Your task to perform on an android device: What's the weather going to be tomorrow? Image 0: 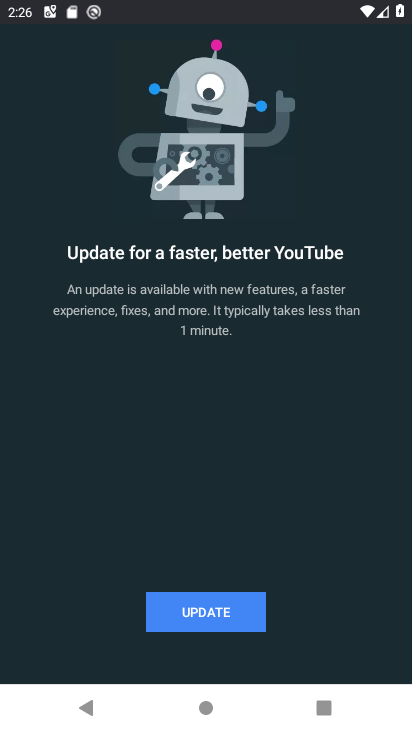
Step 0: press home button
Your task to perform on an android device: What's the weather going to be tomorrow? Image 1: 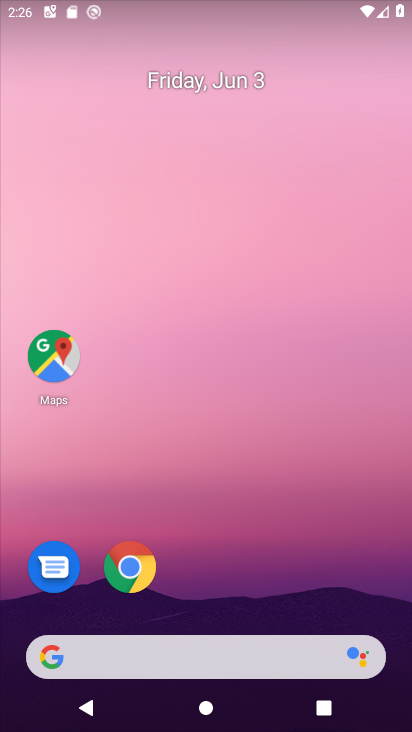
Step 1: drag from (218, 433) to (192, 186)
Your task to perform on an android device: What's the weather going to be tomorrow? Image 2: 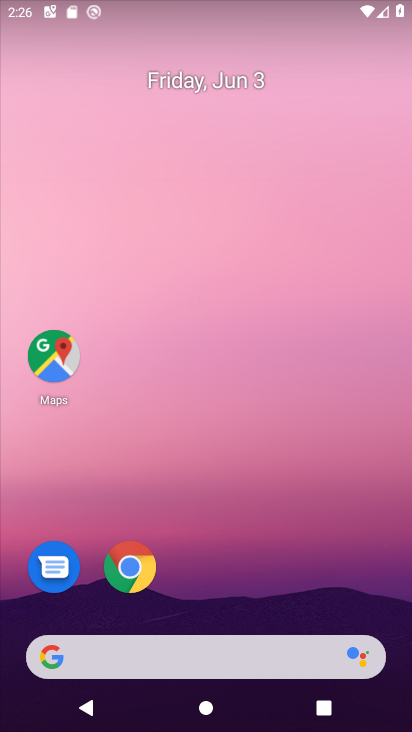
Step 2: drag from (250, 541) to (242, 156)
Your task to perform on an android device: What's the weather going to be tomorrow? Image 3: 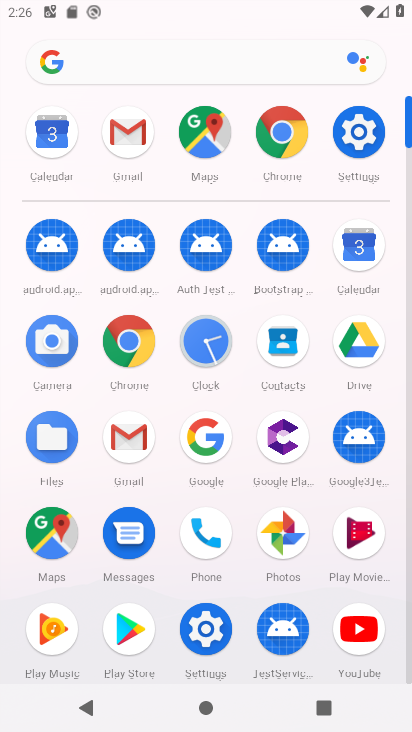
Step 3: click (138, 428)
Your task to perform on an android device: What's the weather going to be tomorrow? Image 4: 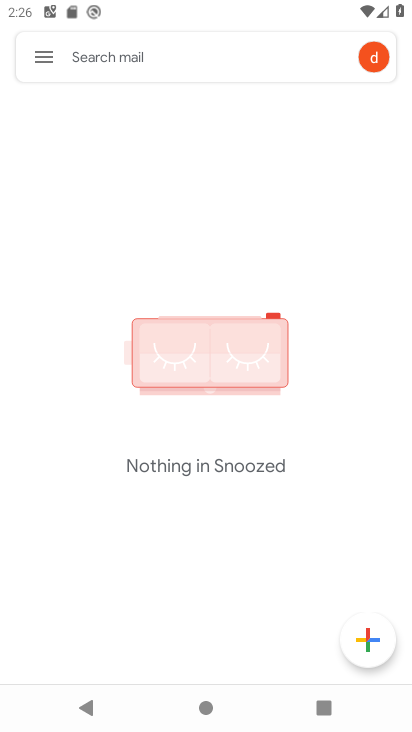
Step 4: click (46, 44)
Your task to perform on an android device: What's the weather going to be tomorrow? Image 5: 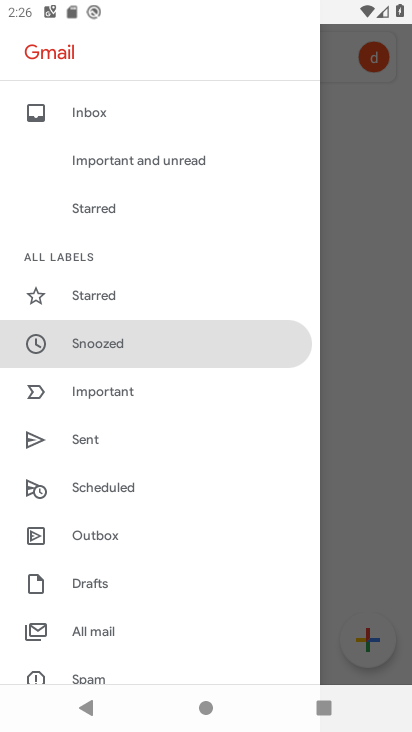
Step 5: press home button
Your task to perform on an android device: What's the weather going to be tomorrow? Image 6: 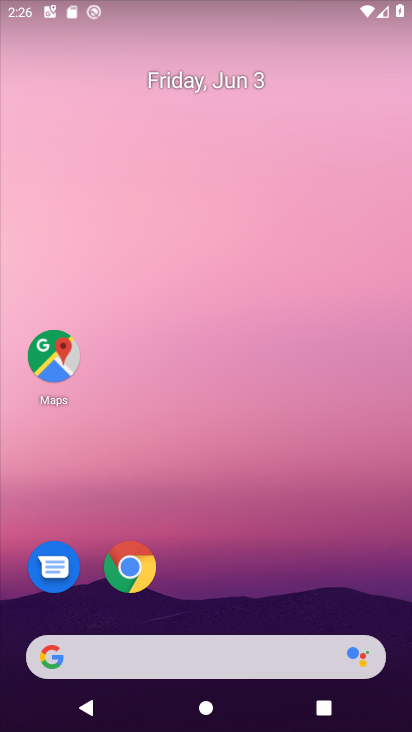
Step 6: click (131, 564)
Your task to perform on an android device: What's the weather going to be tomorrow? Image 7: 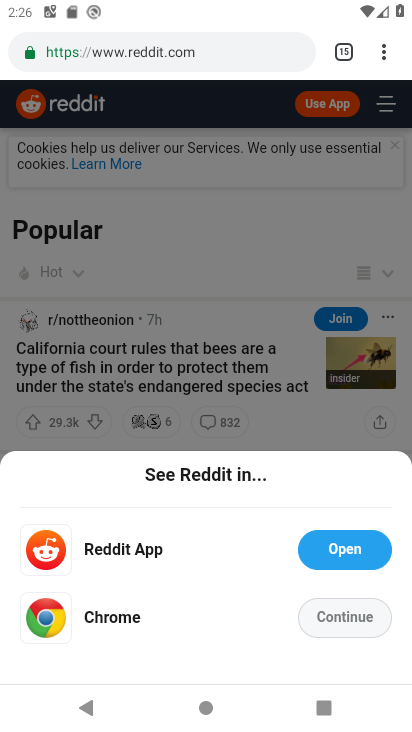
Step 7: click (397, 59)
Your task to perform on an android device: What's the weather going to be tomorrow? Image 8: 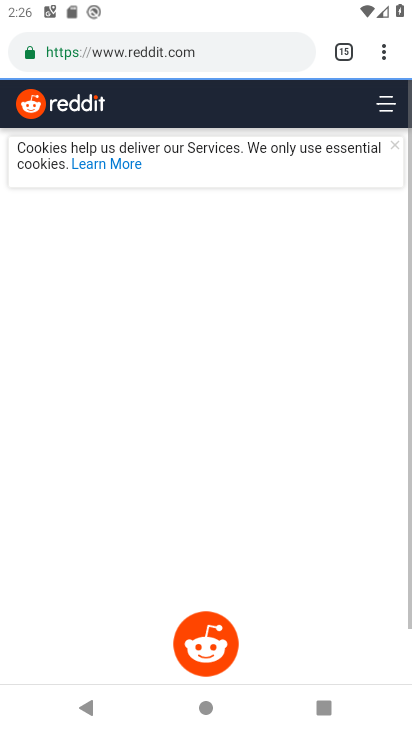
Step 8: click (395, 51)
Your task to perform on an android device: What's the weather going to be tomorrow? Image 9: 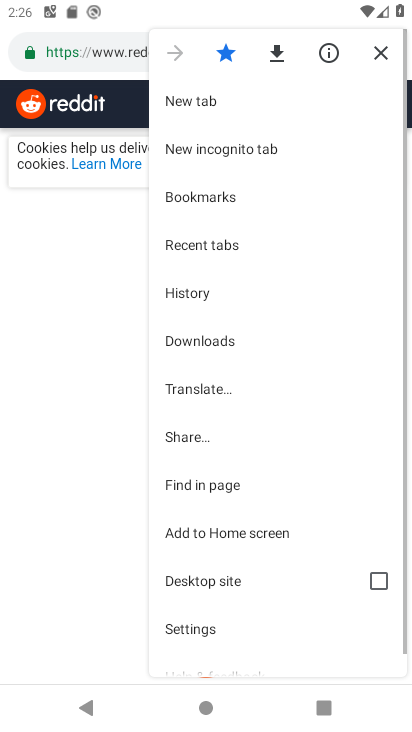
Step 9: click (198, 97)
Your task to perform on an android device: What's the weather going to be tomorrow? Image 10: 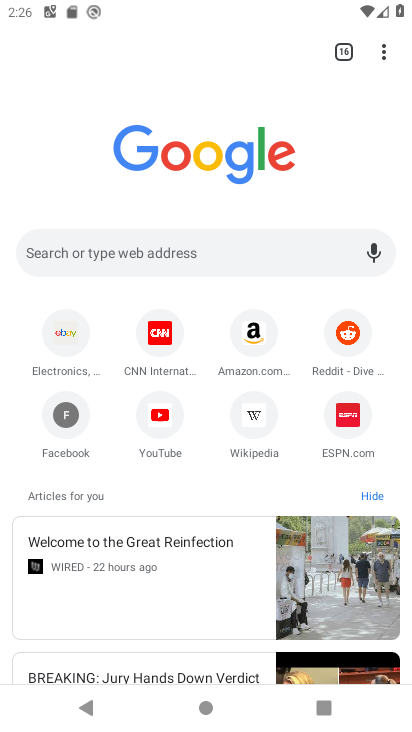
Step 10: click (141, 245)
Your task to perform on an android device: What's the weather going to be tomorrow? Image 11: 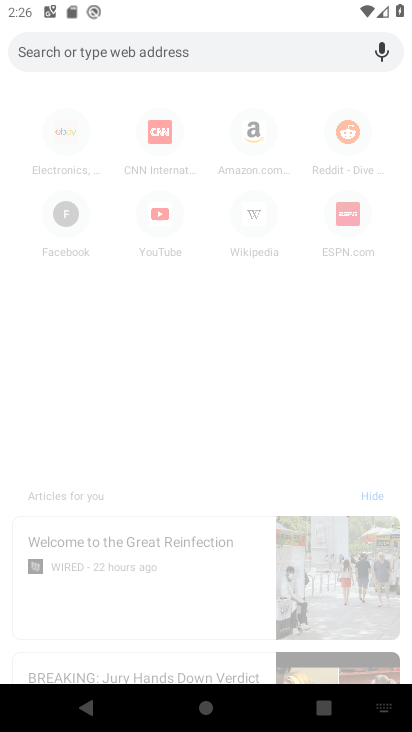
Step 11: type "What's the weather going to be tomorrow?"
Your task to perform on an android device: What's the weather going to be tomorrow? Image 12: 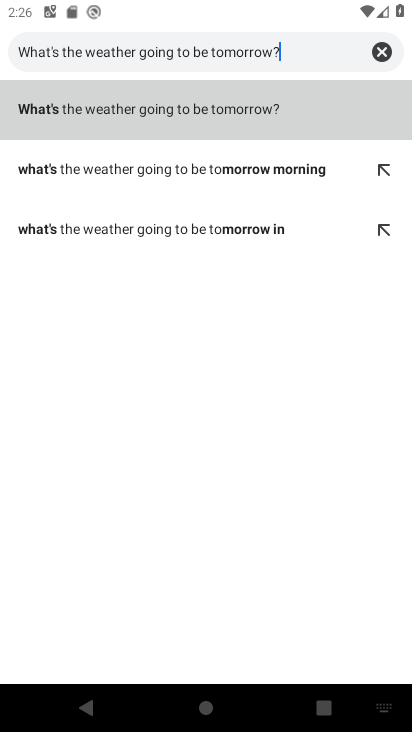
Step 12: click (197, 107)
Your task to perform on an android device: What's the weather going to be tomorrow? Image 13: 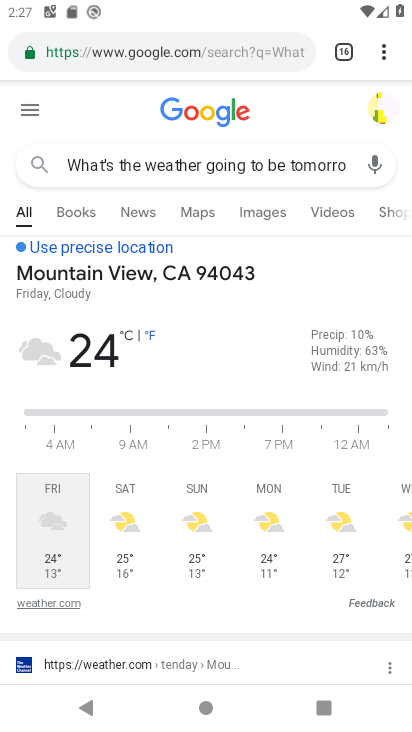
Step 13: task complete